Your task to perform on an android device: turn on bluetooth scan Image 0: 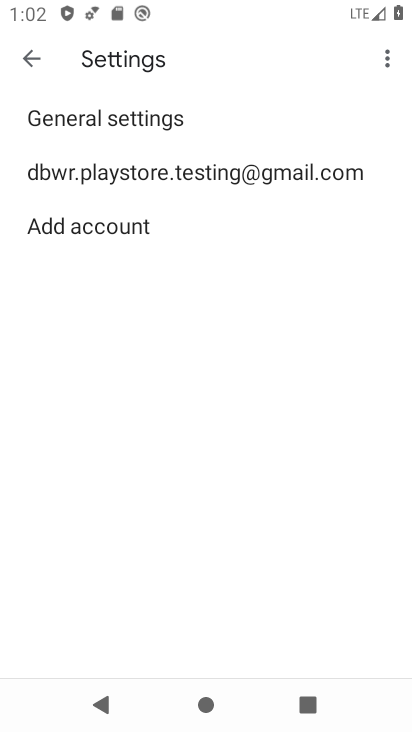
Step 0: press home button
Your task to perform on an android device: turn on bluetooth scan Image 1: 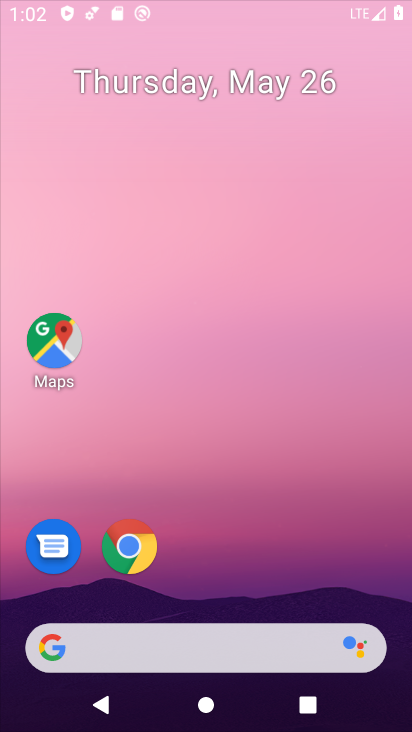
Step 1: drag from (266, 360) to (216, 116)
Your task to perform on an android device: turn on bluetooth scan Image 2: 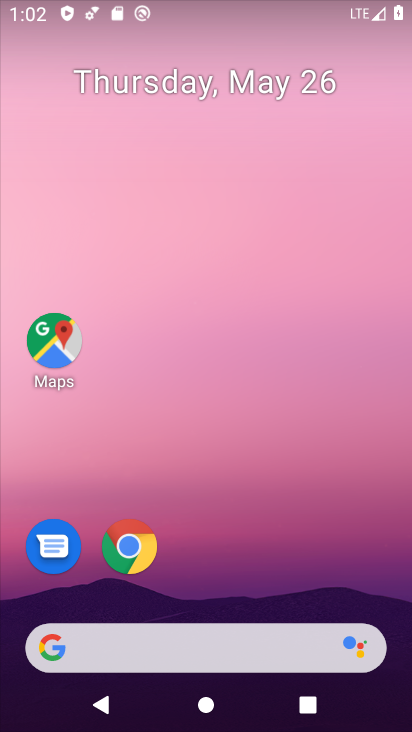
Step 2: drag from (271, 342) to (173, 1)
Your task to perform on an android device: turn on bluetooth scan Image 3: 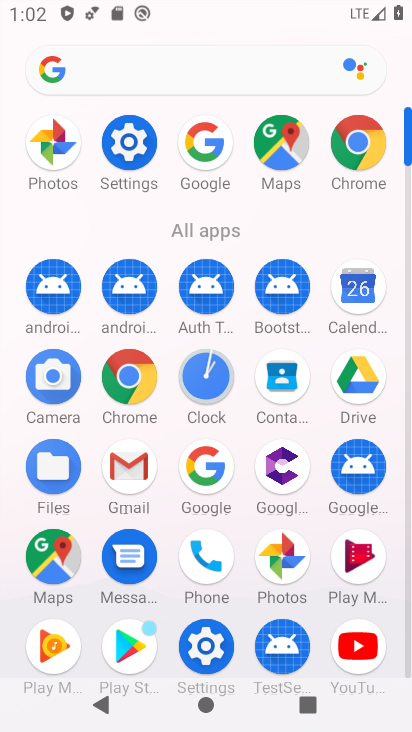
Step 3: click (125, 155)
Your task to perform on an android device: turn on bluetooth scan Image 4: 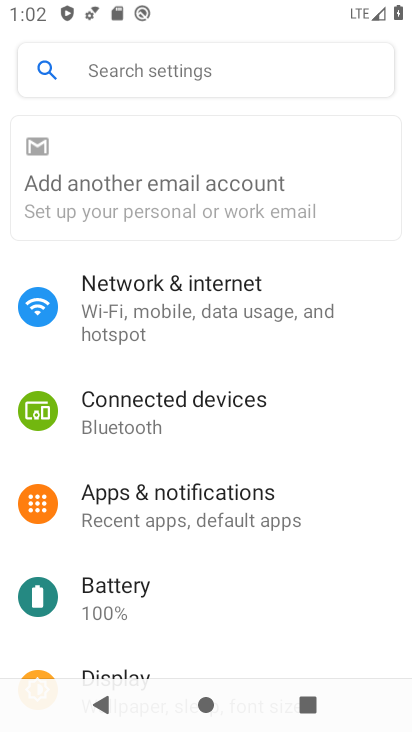
Step 4: drag from (265, 597) to (247, 76)
Your task to perform on an android device: turn on bluetooth scan Image 5: 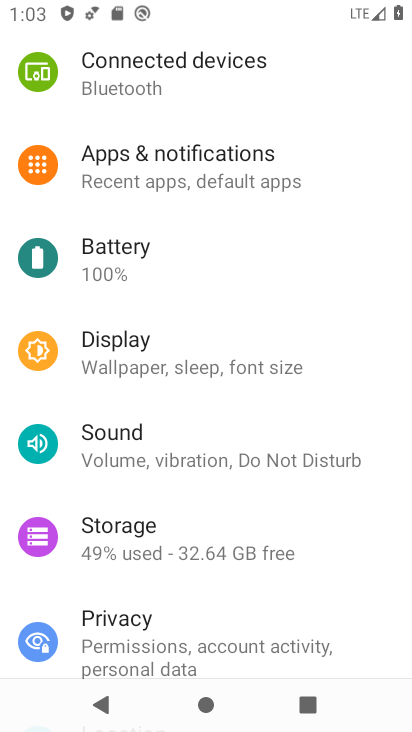
Step 5: drag from (261, 643) to (249, 65)
Your task to perform on an android device: turn on bluetooth scan Image 6: 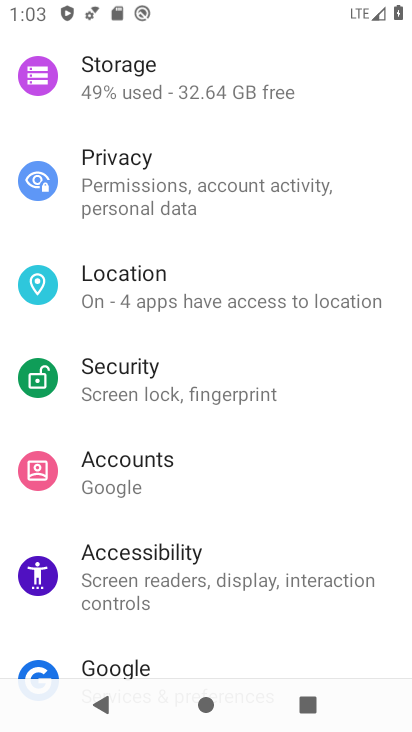
Step 6: click (192, 287)
Your task to perform on an android device: turn on bluetooth scan Image 7: 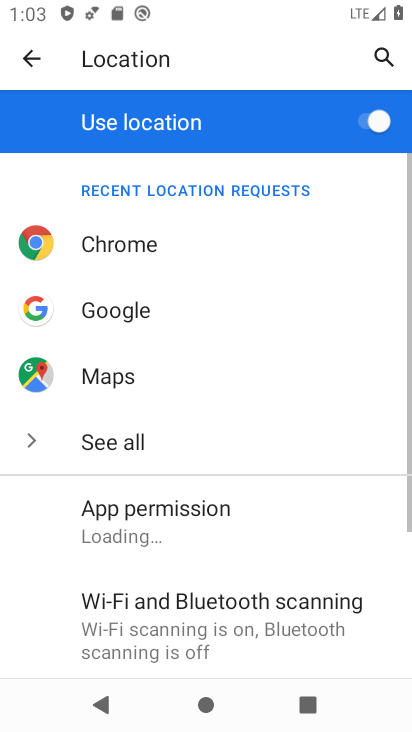
Step 7: click (242, 610)
Your task to perform on an android device: turn on bluetooth scan Image 8: 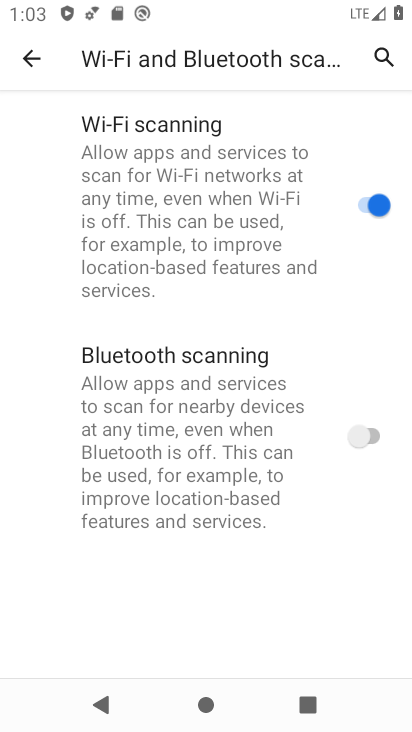
Step 8: click (363, 430)
Your task to perform on an android device: turn on bluetooth scan Image 9: 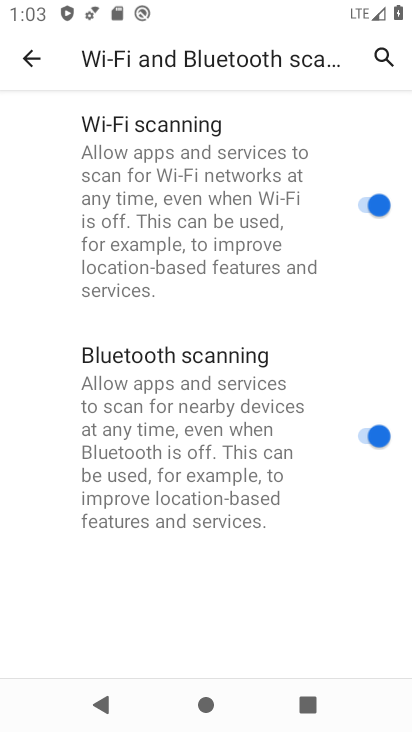
Step 9: task complete